Your task to perform on an android device: Go to network settings Image 0: 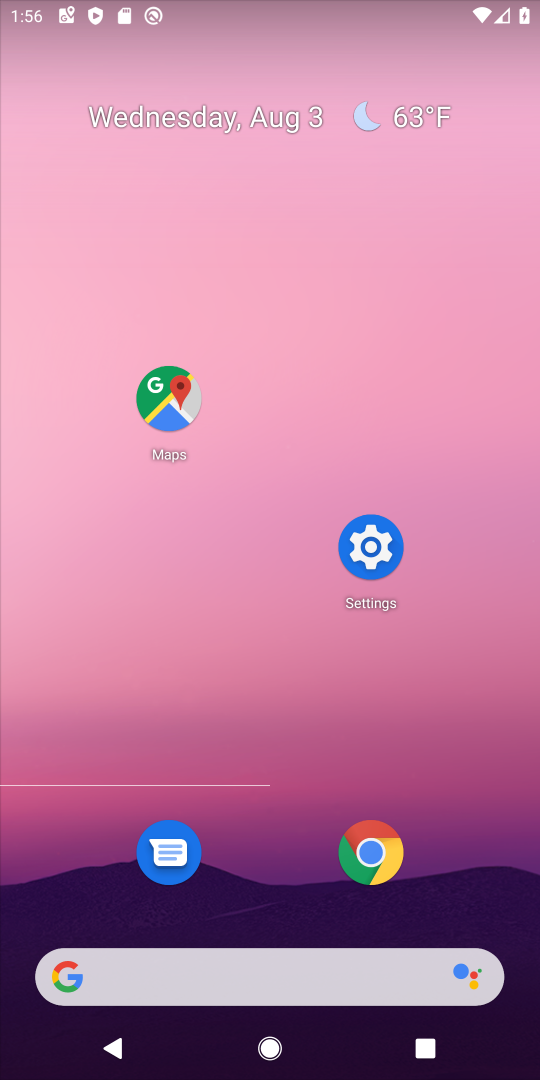
Step 0: press home button
Your task to perform on an android device: Go to network settings Image 1: 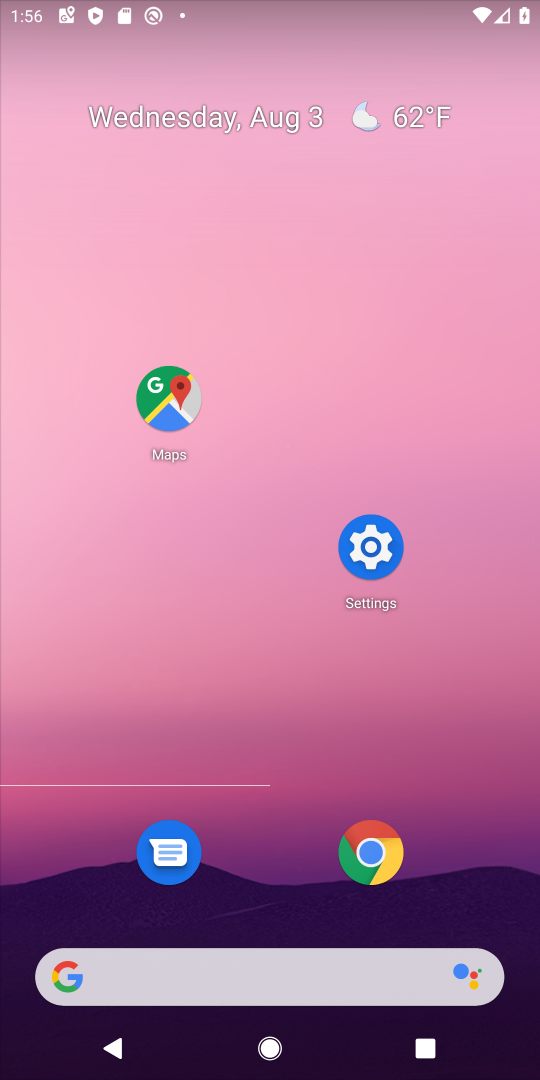
Step 1: click (371, 546)
Your task to perform on an android device: Go to network settings Image 2: 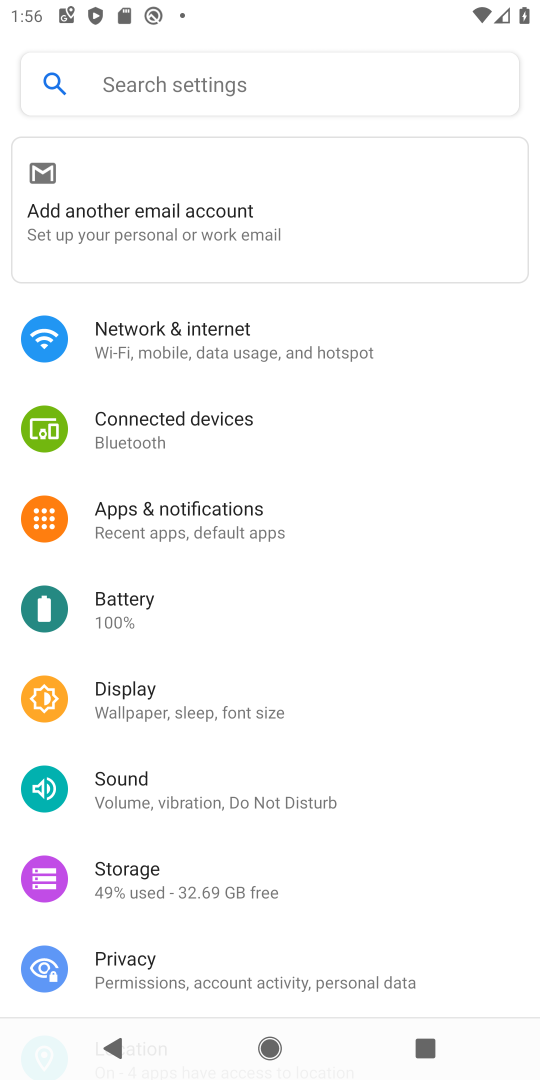
Step 2: click (185, 344)
Your task to perform on an android device: Go to network settings Image 3: 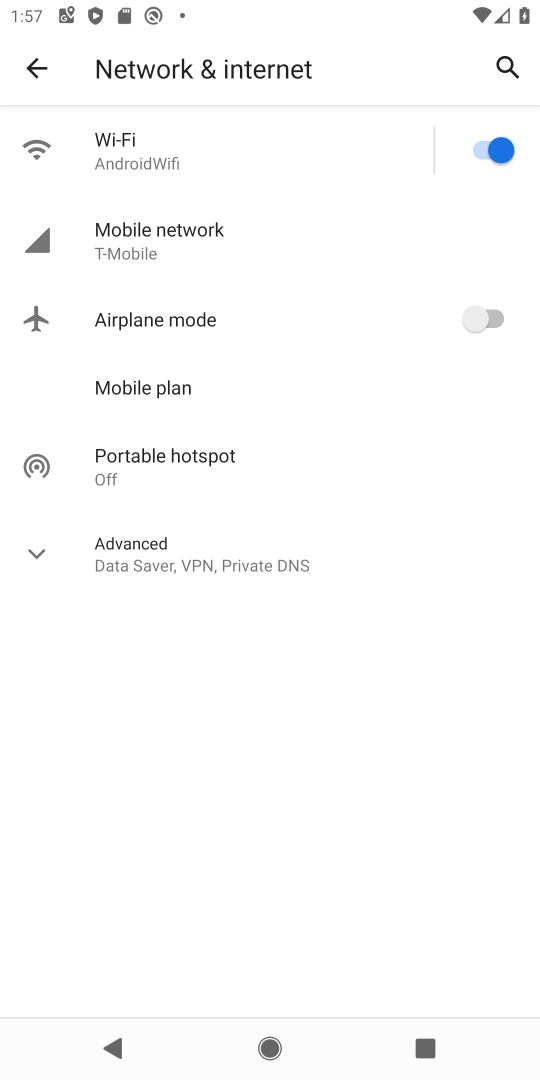
Step 3: click (161, 232)
Your task to perform on an android device: Go to network settings Image 4: 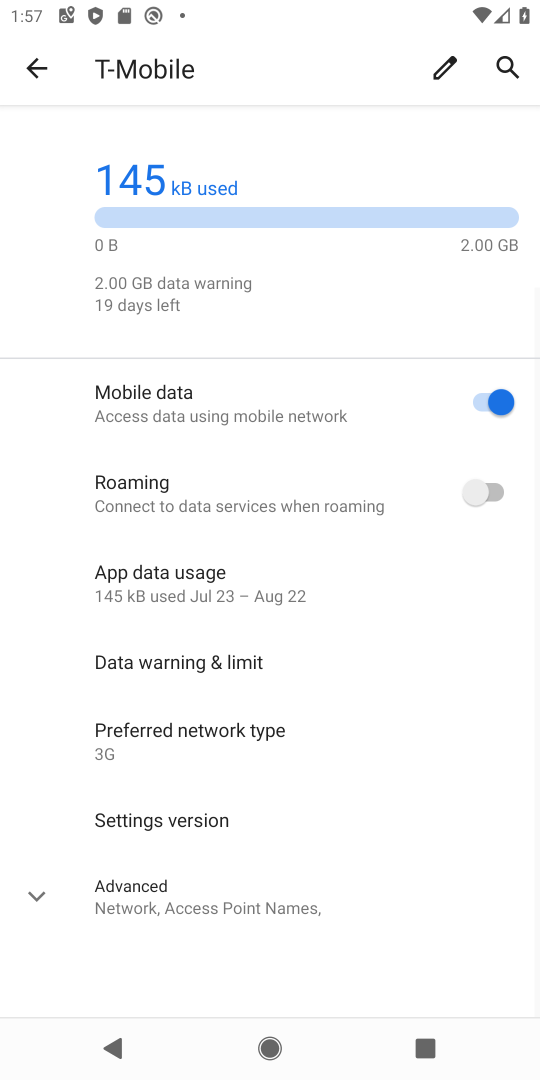
Step 4: task complete